Your task to perform on an android device: turn off improve location accuracy Image 0: 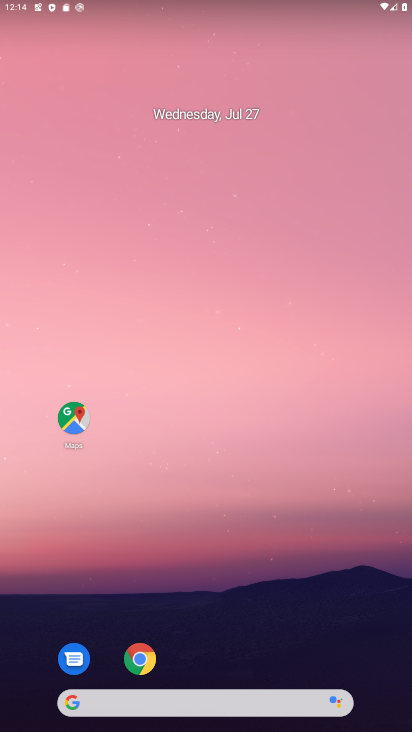
Step 0: press home button
Your task to perform on an android device: turn off improve location accuracy Image 1: 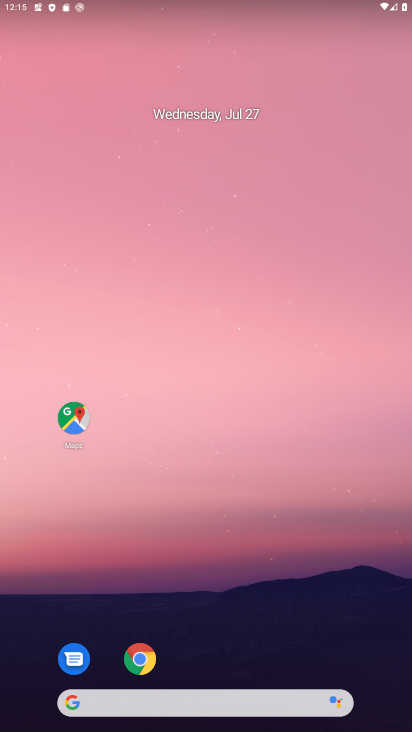
Step 1: drag from (215, 672) to (204, 40)
Your task to perform on an android device: turn off improve location accuracy Image 2: 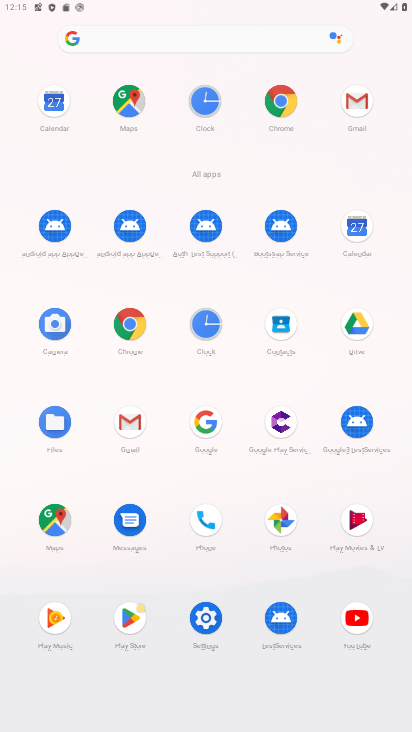
Step 2: click (205, 613)
Your task to perform on an android device: turn off improve location accuracy Image 3: 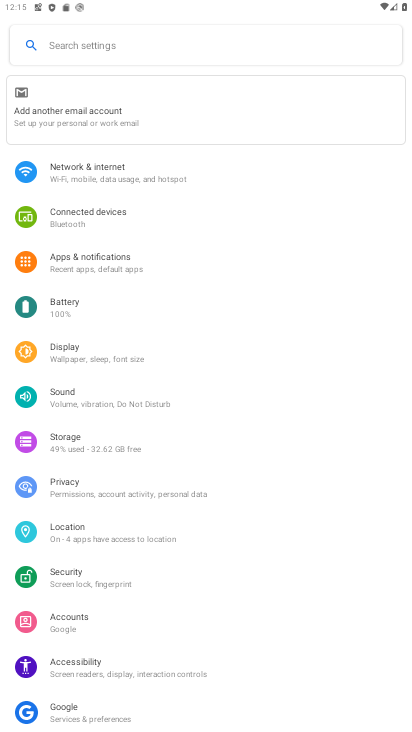
Step 3: click (117, 518)
Your task to perform on an android device: turn off improve location accuracy Image 4: 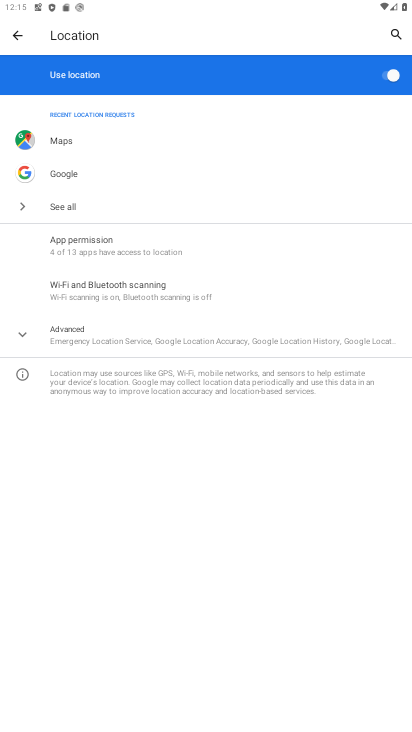
Step 4: click (25, 338)
Your task to perform on an android device: turn off improve location accuracy Image 5: 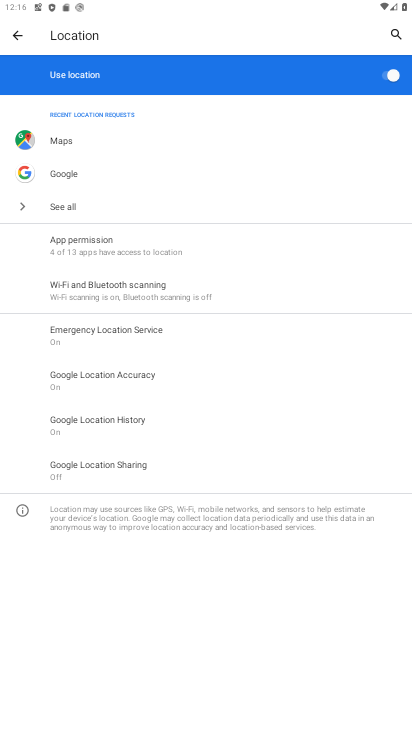
Step 5: click (110, 380)
Your task to perform on an android device: turn off improve location accuracy Image 6: 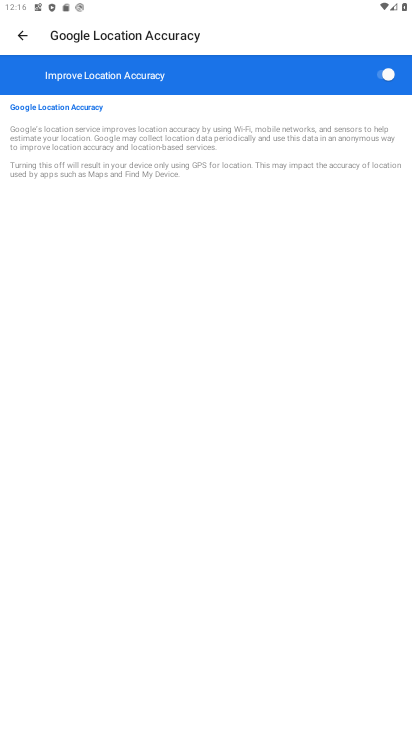
Step 6: click (384, 63)
Your task to perform on an android device: turn off improve location accuracy Image 7: 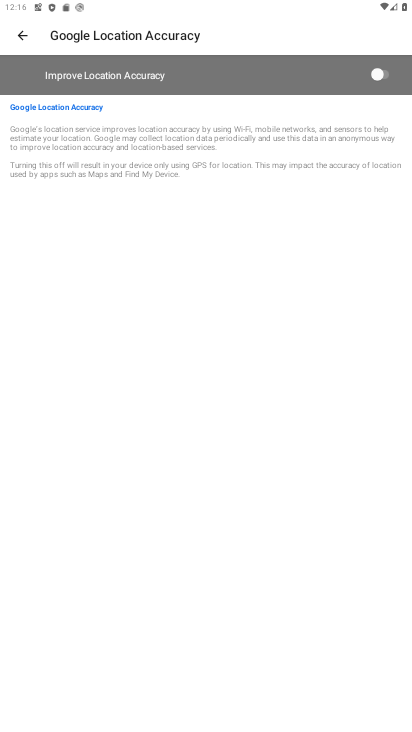
Step 7: task complete